Your task to perform on an android device: What is the recent news? Image 0: 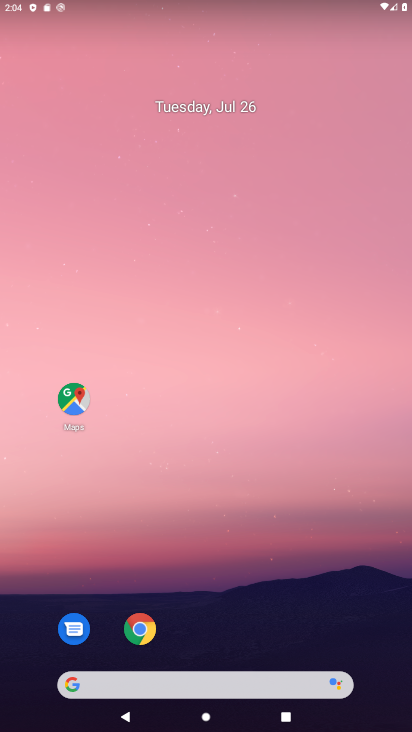
Step 0: click (182, 682)
Your task to perform on an android device: What is the recent news? Image 1: 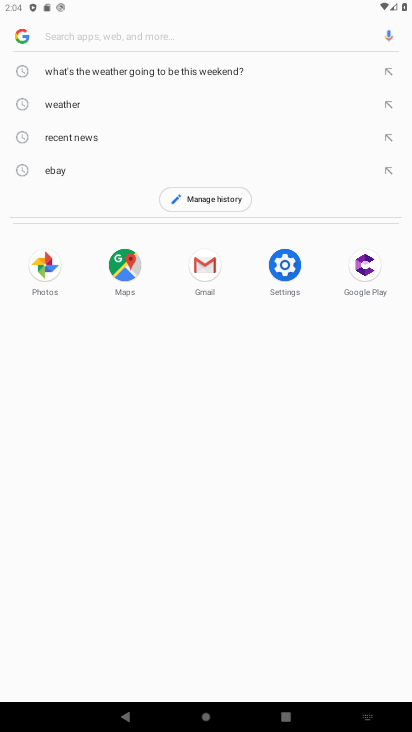
Step 1: type "what is the recent news"
Your task to perform on an android device: What is the recent news? Image 2: 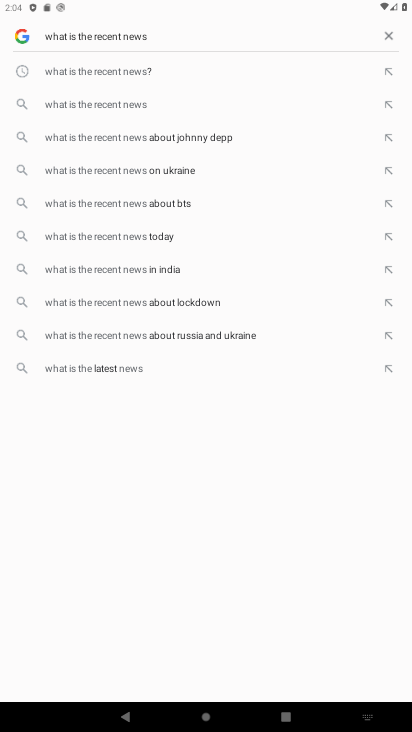
Step 2: click (59, 67)
Your task to perform on an android device: What is the recent news? Image 3: 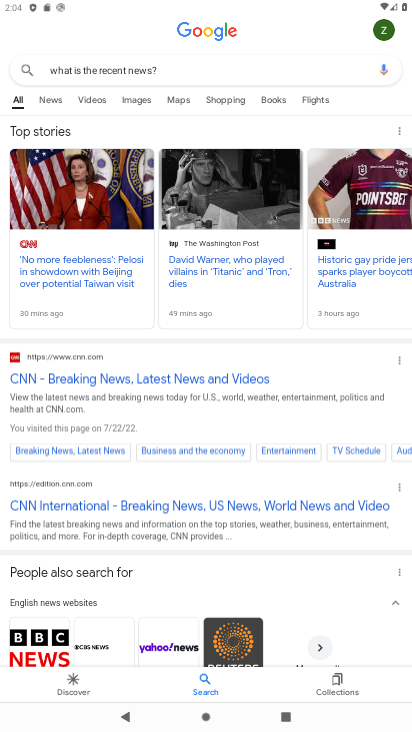
Step 3: task complete